Your task to perform on an android device: Go to Android settings Image 0: 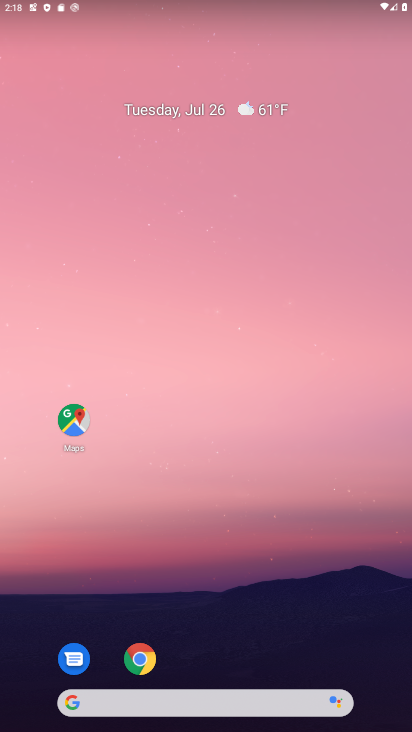
Step 0: drag from (189, 420) to (250, 133)
Your task to perform on an android device: Go to Android settings Image 1: 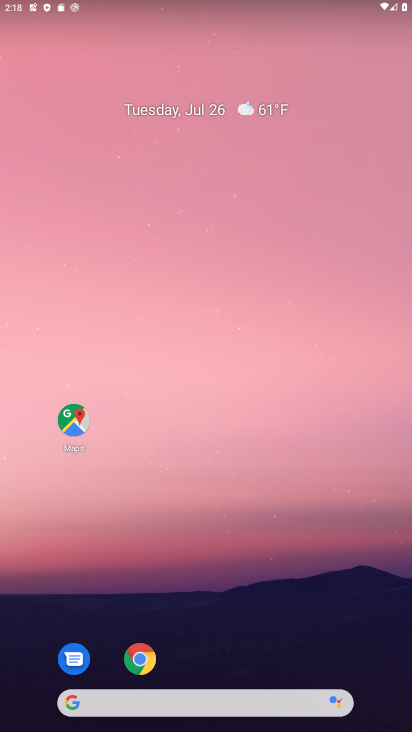
Step 1: drag from (200, 554) to (208, 256)
Your task to perform on an android device: Go to Android settings Image 2: 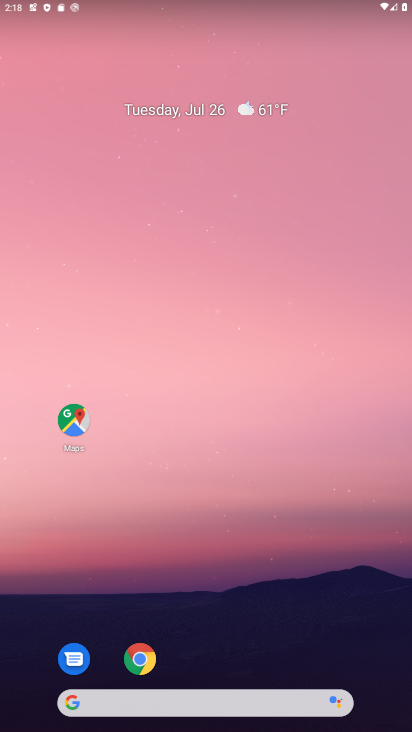
Step 2: drag from (177, 645) to (161, 277)
Your task to perform on an android device: Go to Android settings Image 3: 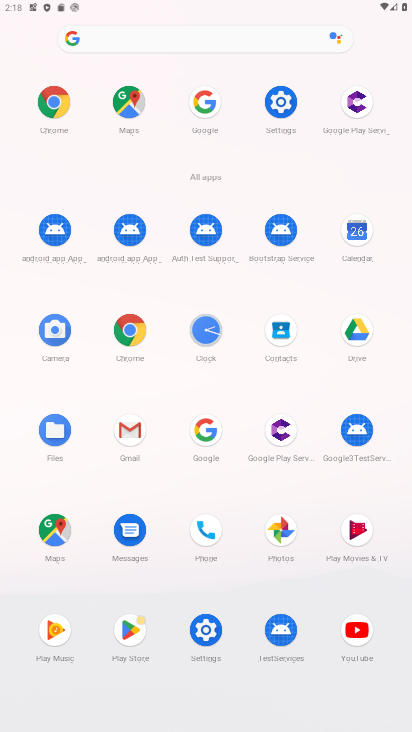
Step 3: click (284, 105)
Your task to perform on an android device: Go to Android settings Image 4: 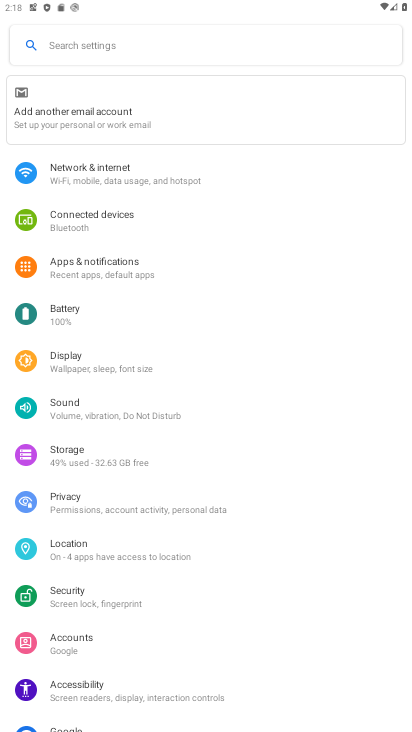
Step 4: drag from (92, 519) to (107, 275)
Your task to perform on an android device: Go to Android settings Image 5: 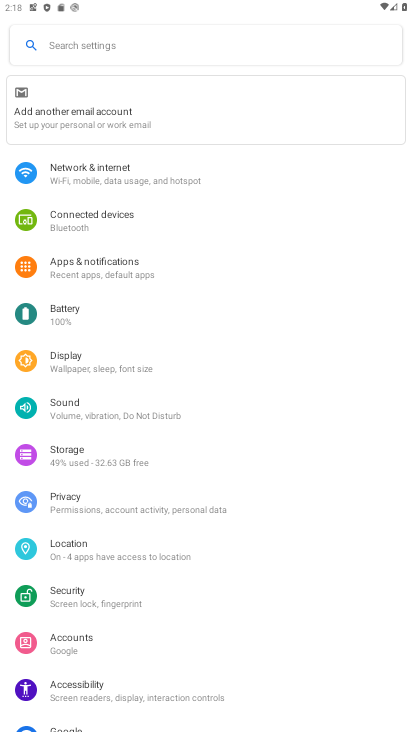
Step 5: drag from (106, 615) to (106, 296)
Your task to perform on an android device: Go to Android settings Image 6: 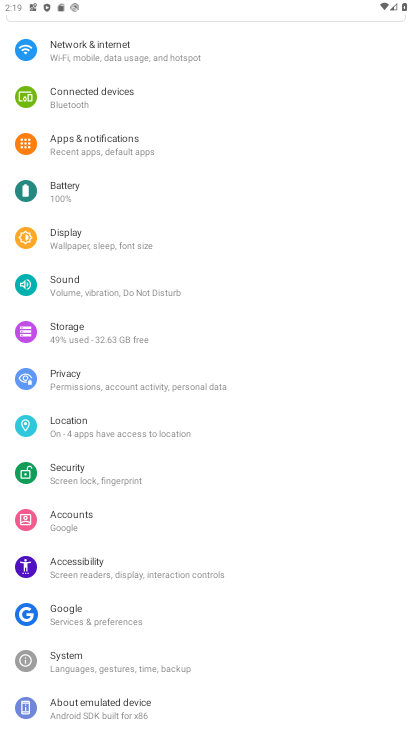
Step 6: click (71, 704)
Your task to perform on an android device: Go to Android settings Image 7: 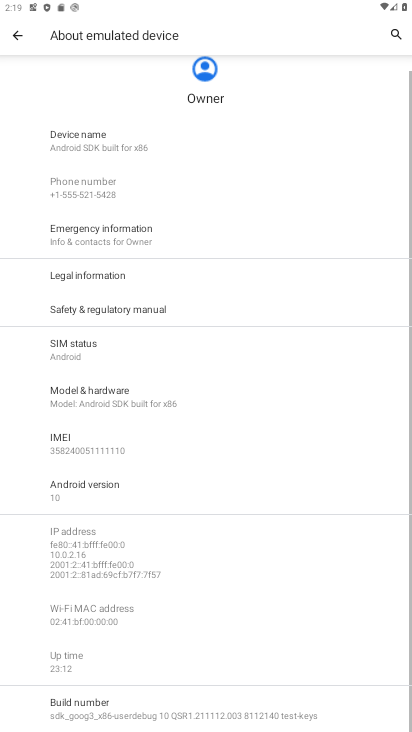
Step 7: click (112, 494)
Your task to perform on an android device: Go to Android settings Image 8: 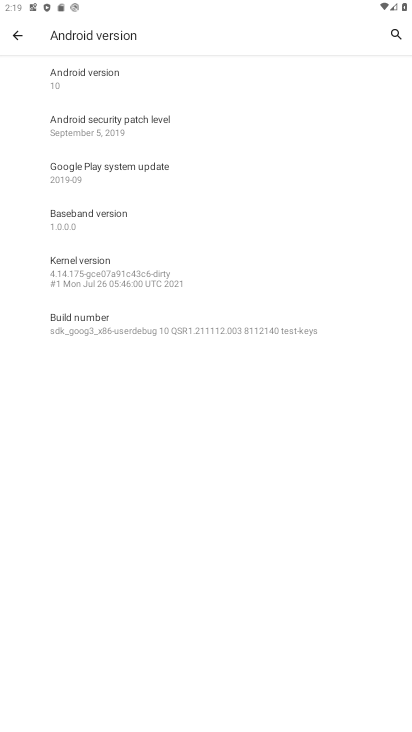
Step 8: task complete